Your task to perform on an android device: Go to Maps Image 0: 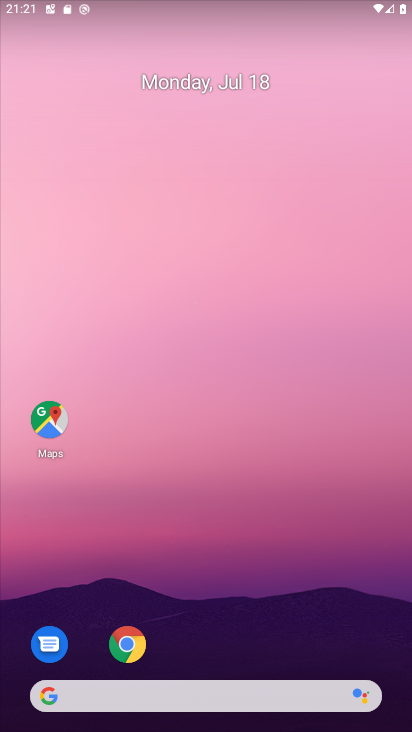
Step 0: click (37, 413)
Your task to perform on an android device: Go to Maps Image 1: 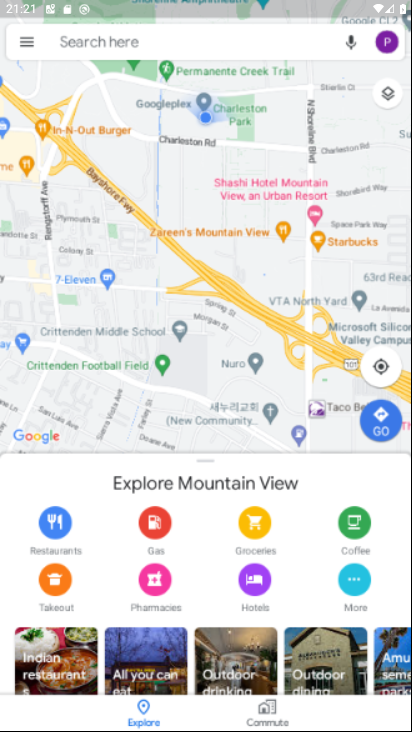
Step 1: task complete